Your task to perform on an android device: Open the Play Movies app and select the watchlist tab. Image 0: 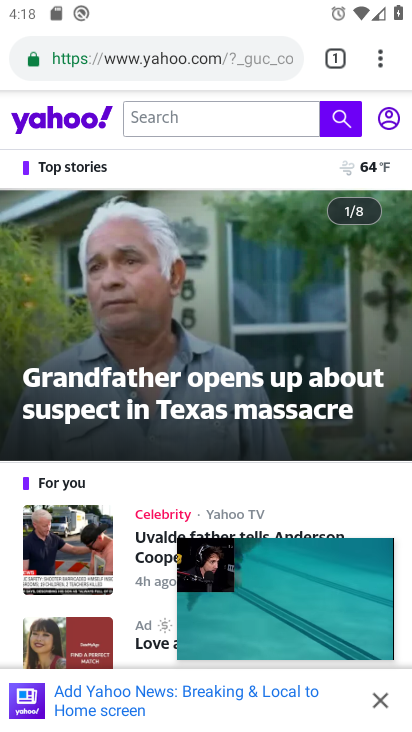
Step 0: click (306, 589)
Your task to perform on an android device: Open the Play Movies app and select the watchlist tab. Image 1: 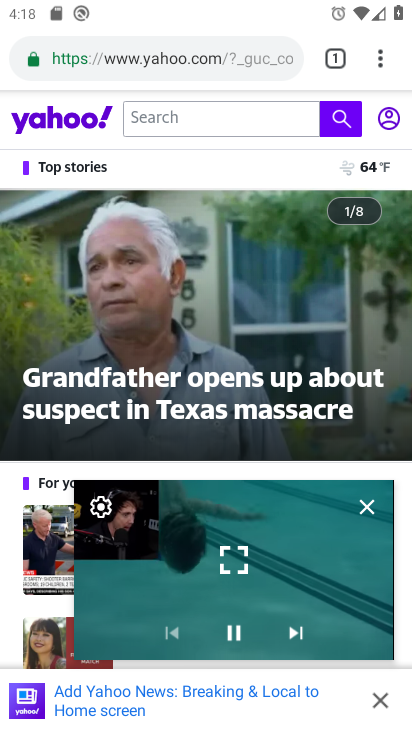
Step 1: click (370, 504)
Your task to perform on an android device: Open the Play Movies app and select the watchlist tab. Image 2: 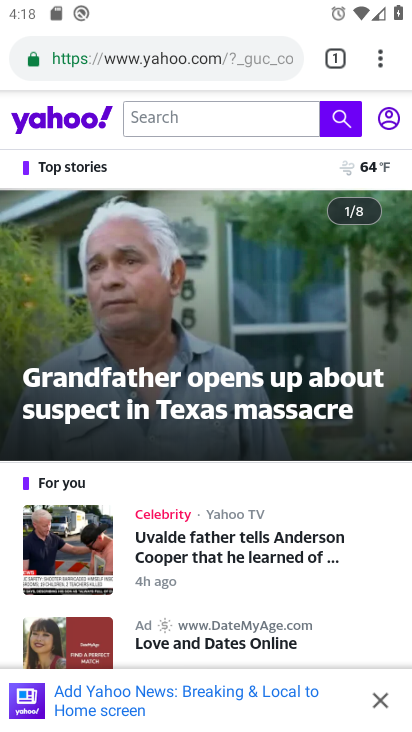
Step 2: press home button
Your task to perform on an android device: Open the Play Movies app and select the watchlist tab. Image 3: 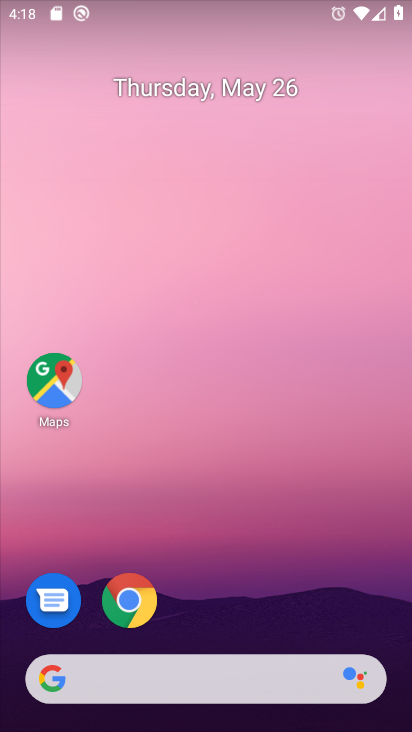
Step 3: drag from (207, 604) to (257, 78)
Your task to perform on an android device: Open the Play Movies app and select the watchlist tab. Image 4: 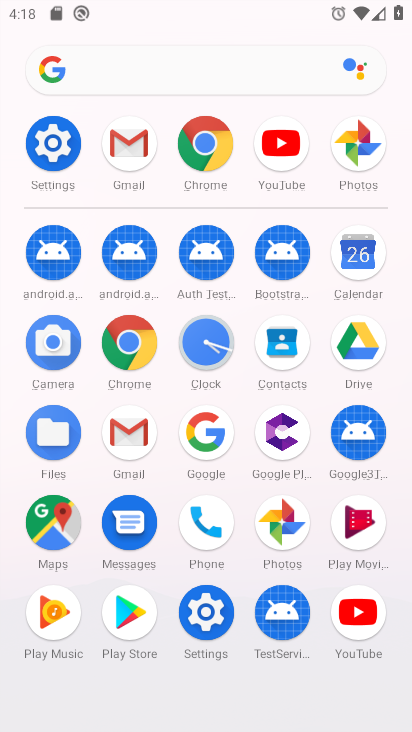
Step 4: click (367, 541)
Your task to perform on an android device: Open the Play Movies app and select the watchlist tab. Image 5: 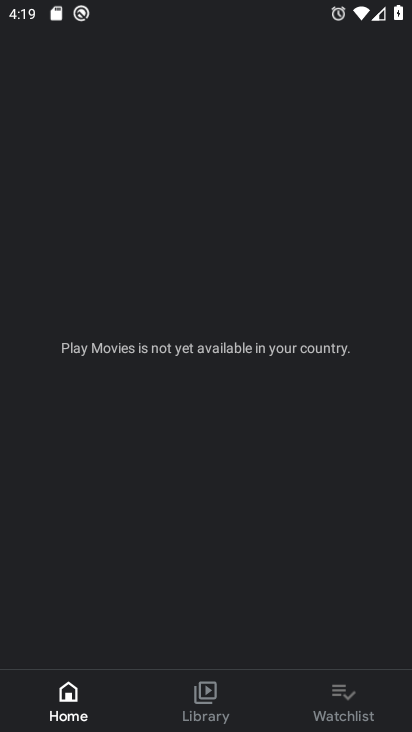
Step 5: click (326, 691)
Your task to perform on an android device: Open the Play Movies app and select the watchlist tab. Image 6: 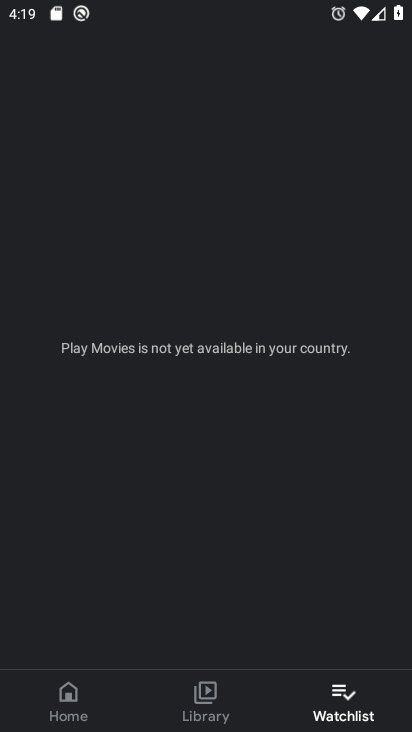
Step 6: task complete